Your task to perform on an android device: toggle airplane mode Image 0: 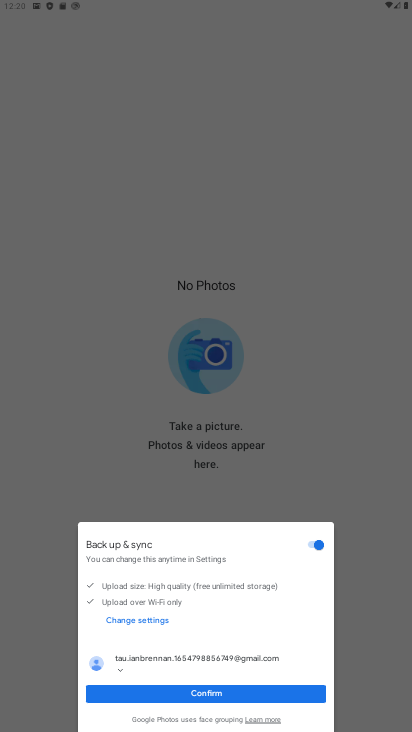
Step 0: press home button
Your task to perform on an android device: toggle airplane mode Image 1: 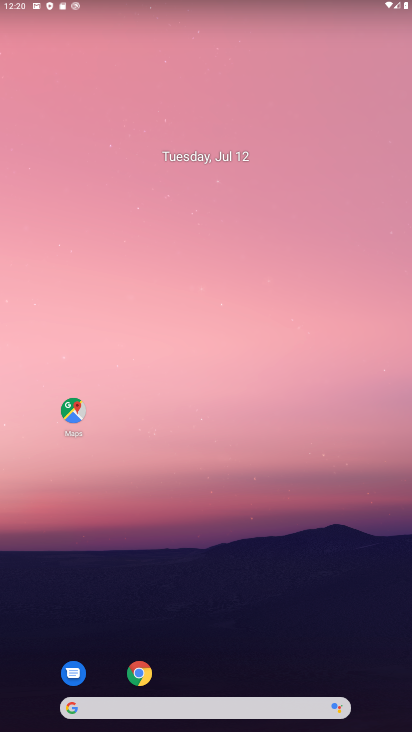
Step 1: drag from (222, 679) to (304, 290)
Your task to perform on an android device: toggle airplane mode Image 2: 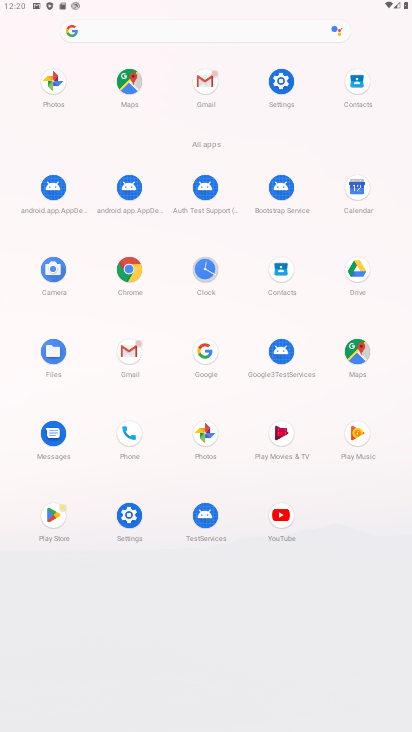
Step 2: click (127, 515)
Your task to perform on an android device: toggle airplane mode Image 3: 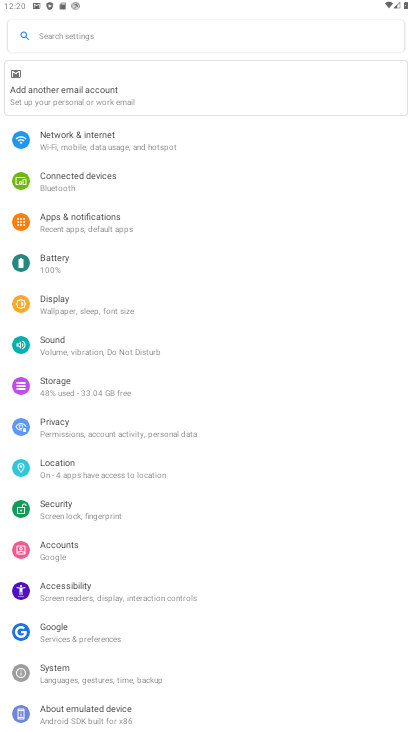
Step 3: click (153, 145)
Your task to perform on an android device: toggle airplane mode Image 4: 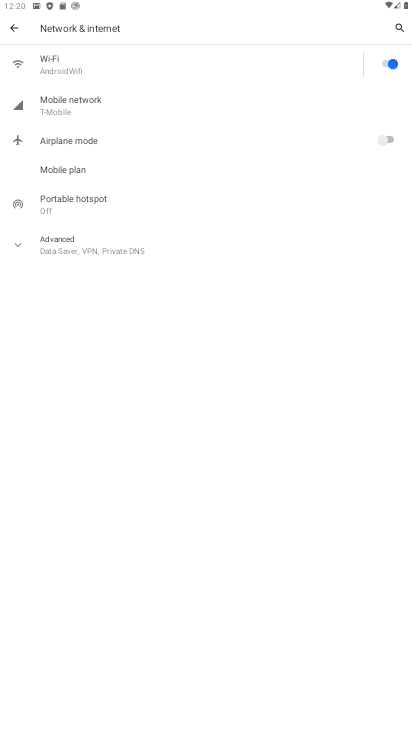
Step 4: click (393, 136)
Your task to perform on an android device: toggle airplane mode Image 5: 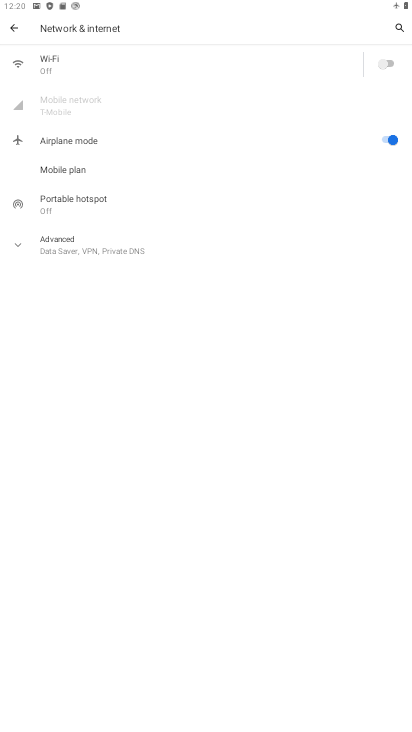
Step 5: task complete